Your task to perform on an android device: set the timer Image 0: 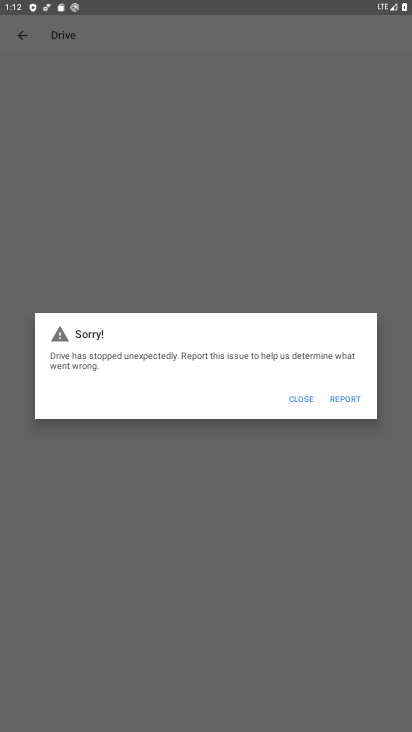
Step 0: press home button
Your task to perform on an android device: set the timer Image 1: 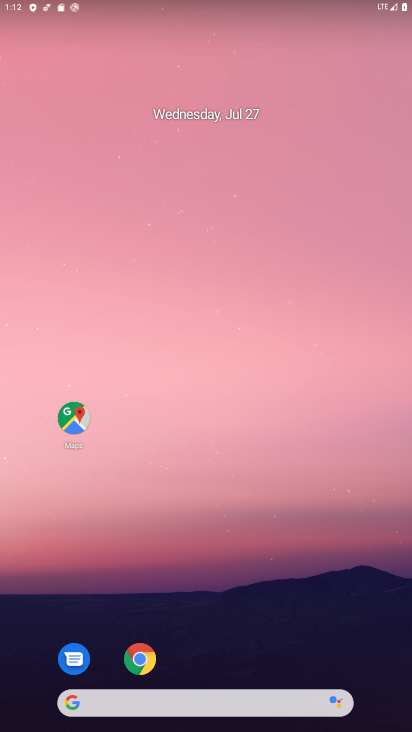
Step 1: drag from (205, 731) to (189, 61)
Your task to perform on an android device: set the timer Image 2: 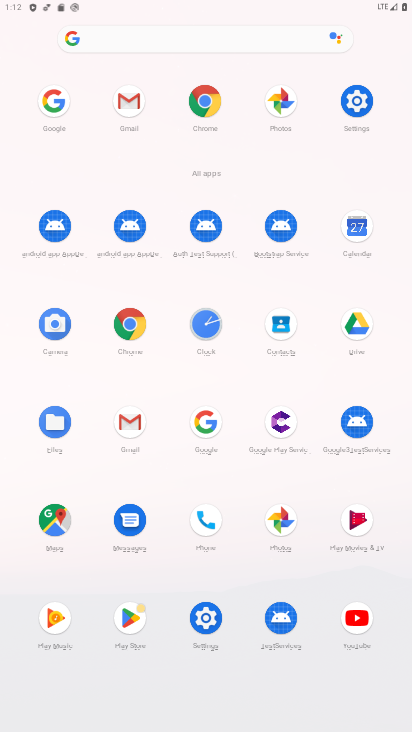
Step 2: click (208, 322)
Your task to perform on an android device: set the timer Image 3: 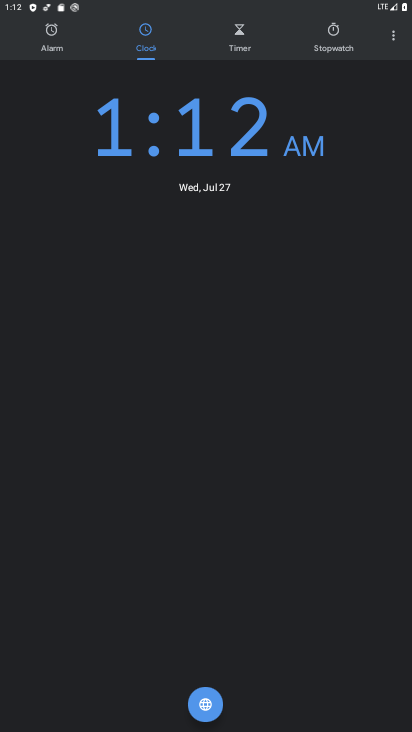
Step 3: click (235, 32)
Your task to perform on an android device: set the timer Image 4: 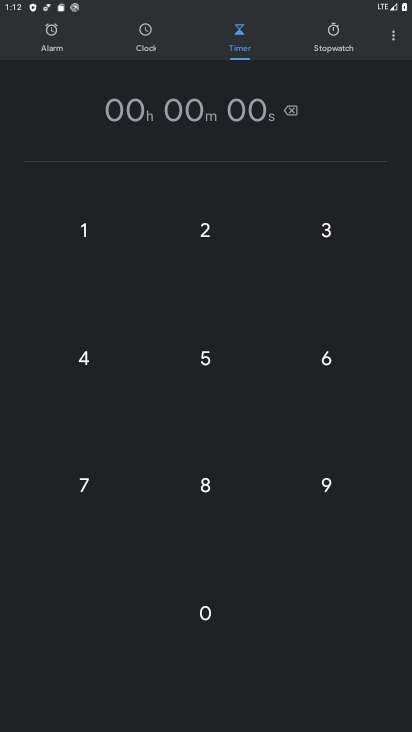
Step 4: click (203, 347)
Your task to perform on an android device: set the timer Image 5: 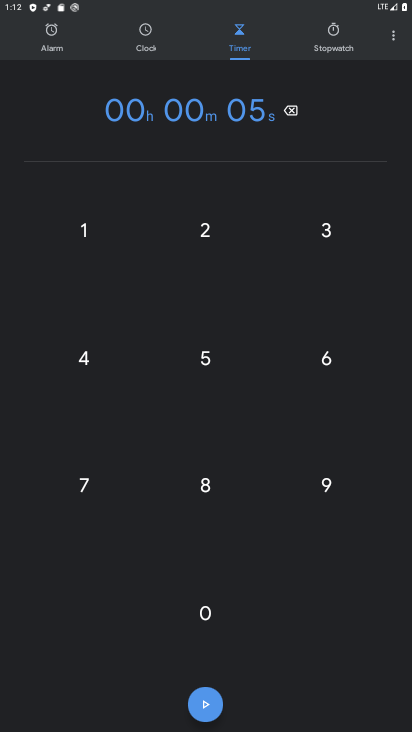
Step 5: click (206, 220)
Your task to perform on an android device: set the timer Image 6: 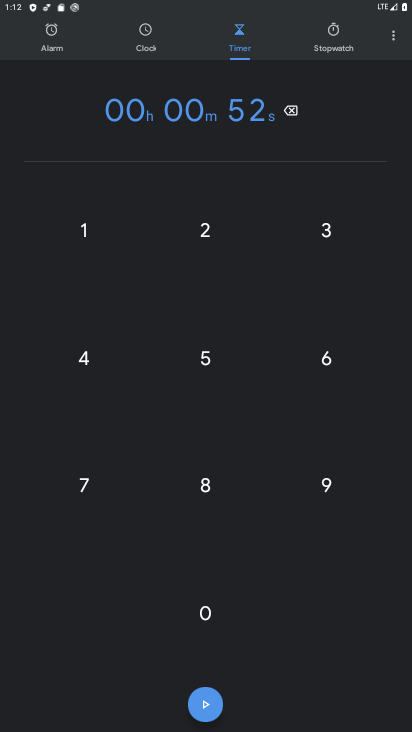
Step 6: click (78, 361)
Your task to perform on an android device: set the timer Image 7: 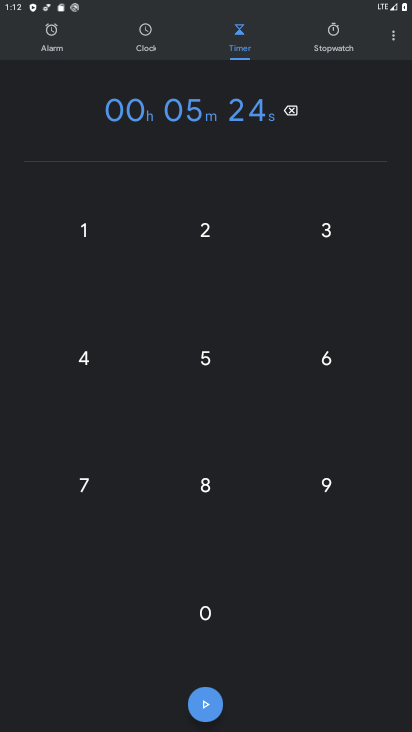
Step 7: click (206, 697)
Your task to perform on an android device: set the timer Image 8: 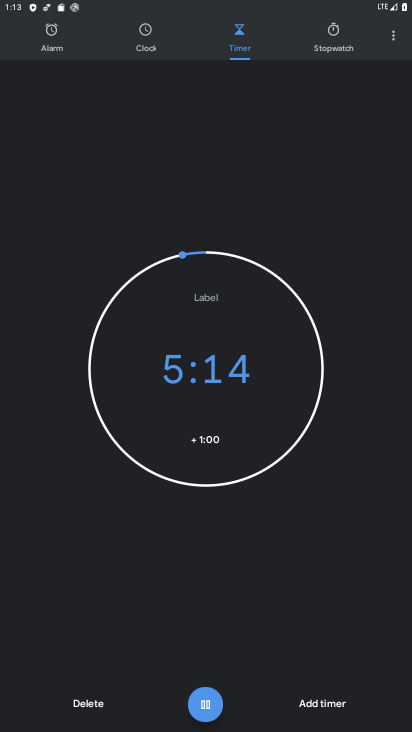
Step 8: task complete